Your task to perform on an android device: Open Google Chrome and open the bookmarks view Image 0: 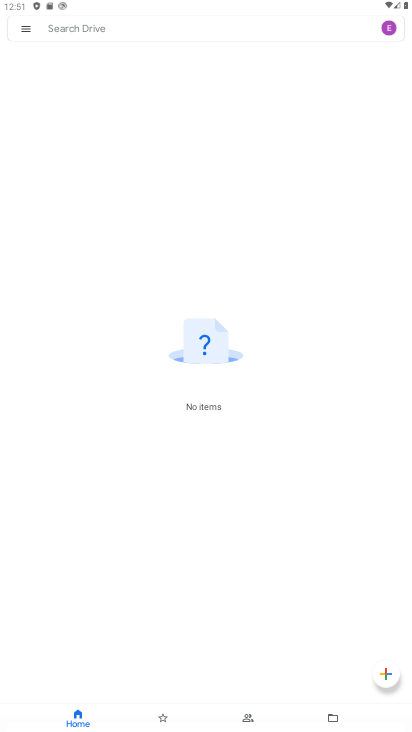
Step 0: press home button
Your task to perform on an android device: Open Google Chrome and open the bookmarks view Image 1: 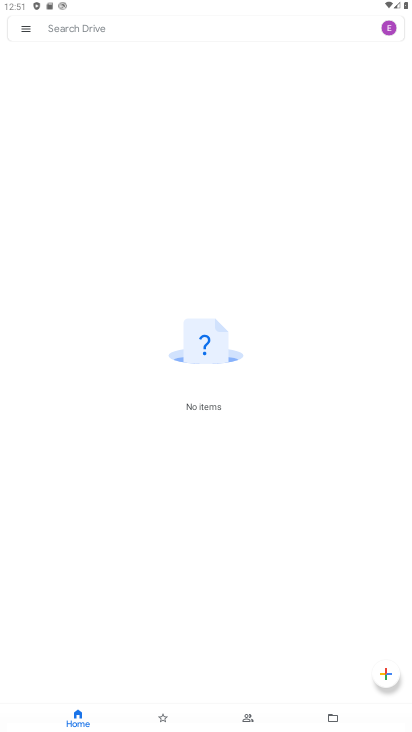
Step 1: press home button
Your task to perform on an android device: Open Google Chrome and open the bookmarks view Image 2: 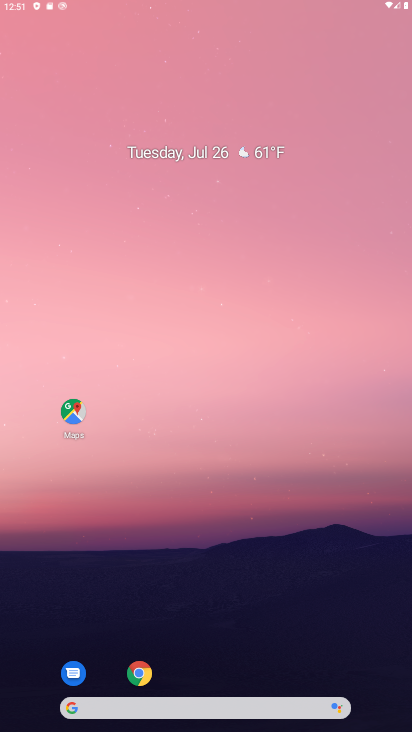
Step 2: press home button
Your task to perform on an android device: Open Google Chrome and open the bookmarks view Image 3: 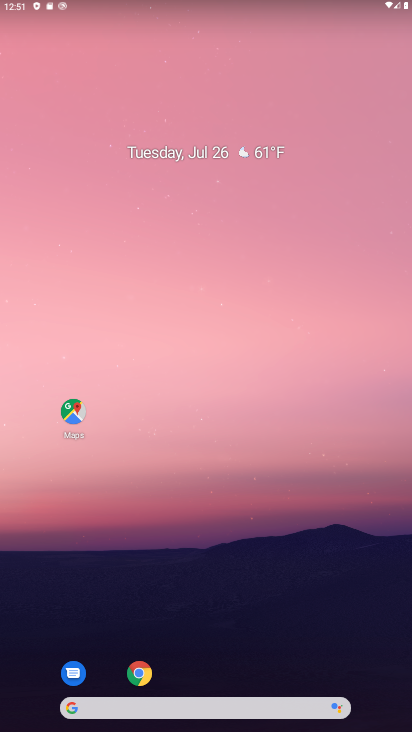
Step 3: drag from (170, 652) to (240, 149)
Your task to perform on an android device: Open Google Chrome and open the bookmarks view Image 4: 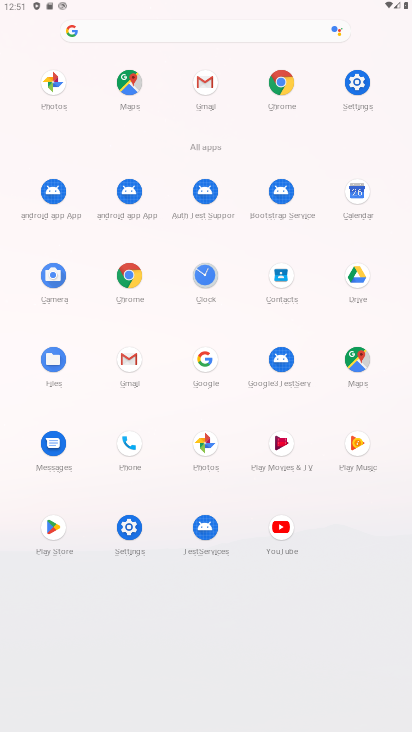
Step 4: click (281, 78)
Your task to perform on an android device: Open Google Chrome and open the bookmarks view Image 5: 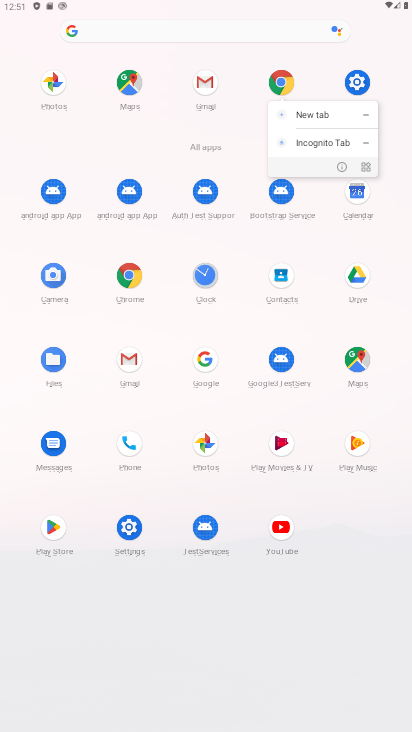
Step 5: click (336, 165)
Your task to perform on an android device: Open Google Chrome and open the bookmarks view Image 6: 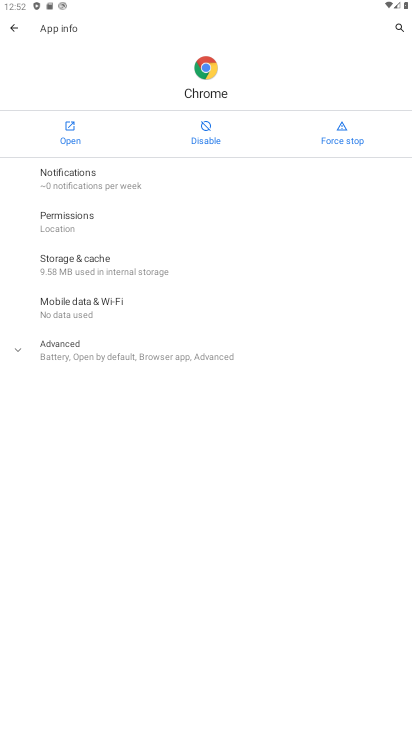
Step 6: click (58, 141)
Your task to perform on an android device: Open Google Chrome and open the bookmarks view Image 7: 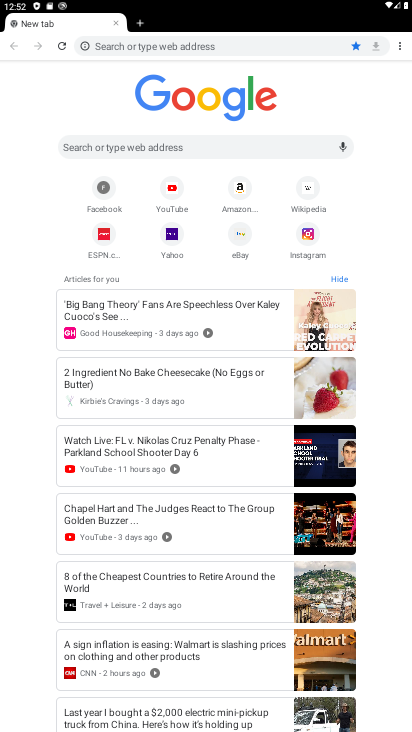
Step 7: task complete